Your task to perform on an android device: Open calendar and show me the fourth week of next month Image 0: 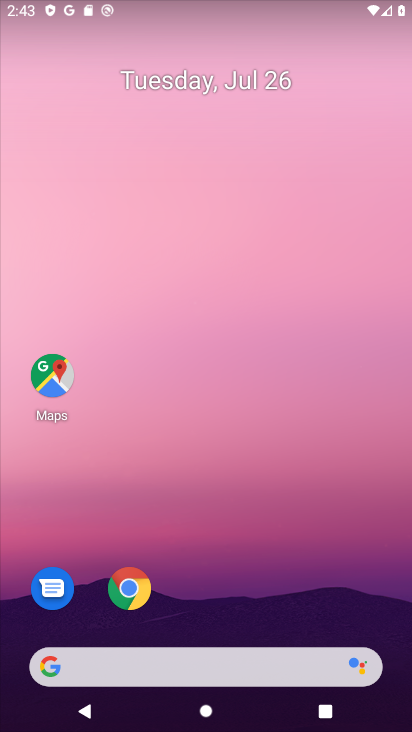
Step 0: drag from (297, 608) to (277, 51)
Your task to perform on an android device: Open calendar and show me the fourth week of next month Image 1: 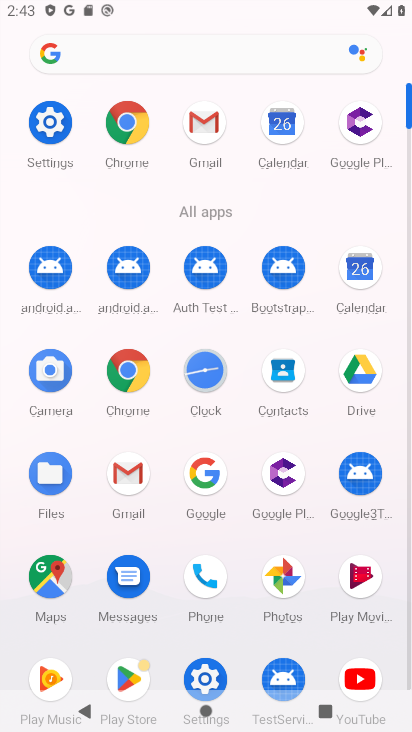
Step 1: click (358, 265)
Your task to perform on an android device: Open calendar and show me the fourth week of next month Image 2: 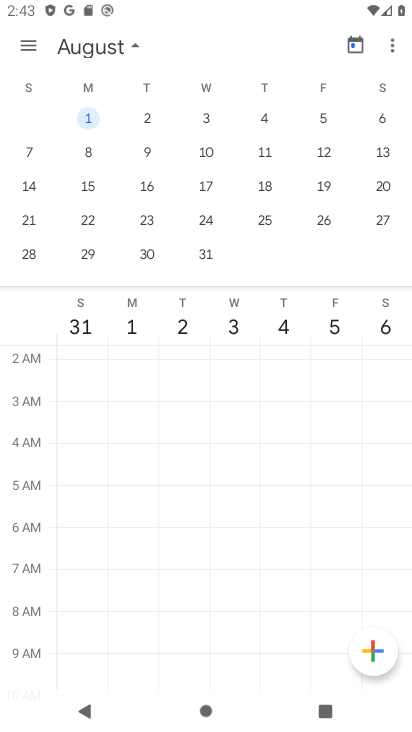
Step 2: click (152, 222)
Your task to perform on an android device: Open calendar and show me the fourth week of next month Image 3: 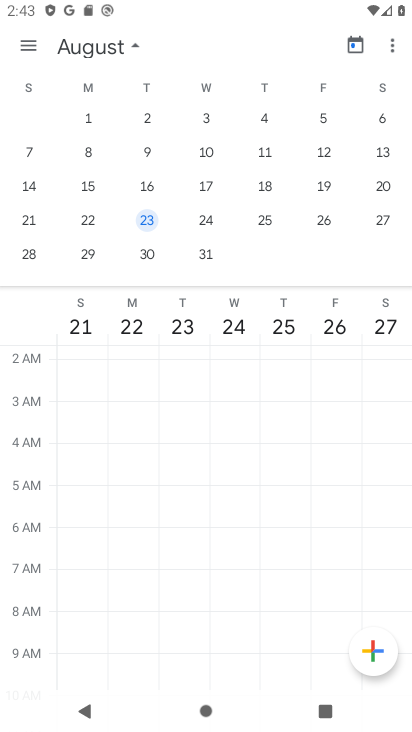
Step 3: task complete